Your task to perform on an android device: Is it going to rain tomorrow? Image 0: 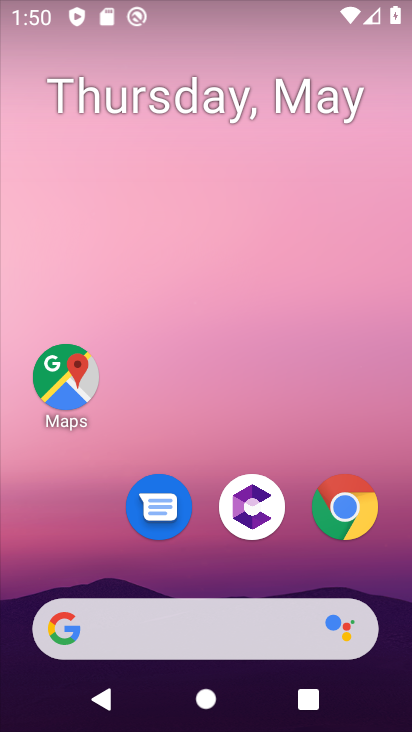
Step 0: click (64, 374)
Your task to perform on an android device: Is it going to rain tomorrow? Image 1: 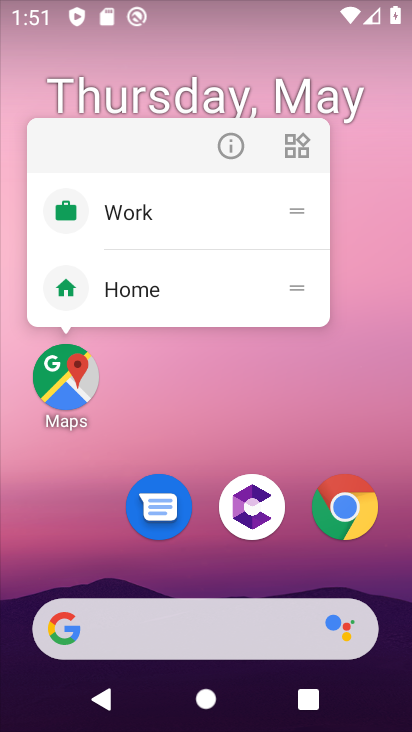
Step 1: click (199, 621)
Your task to perform on an android device: Is it going to rain tomorrow? Image 2: 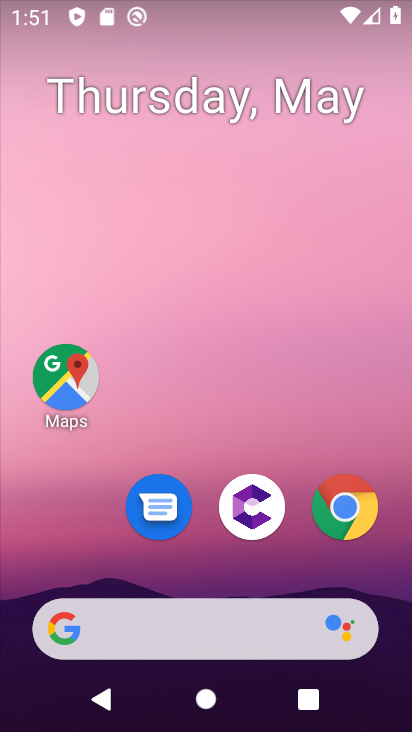
Step 2: click (199, 621)
Your task to perform on an android device: Is it going to rain tomorrow? Image 3: 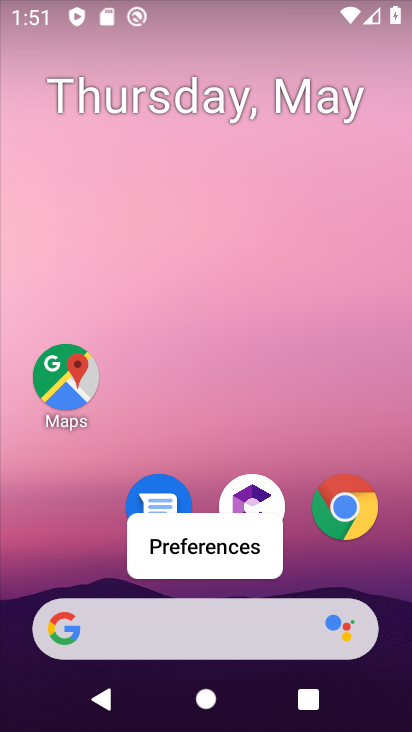
Step 3: click (229, 627)
Your task to perform on an android device: Is it going to rain tomorrow? Image 4: 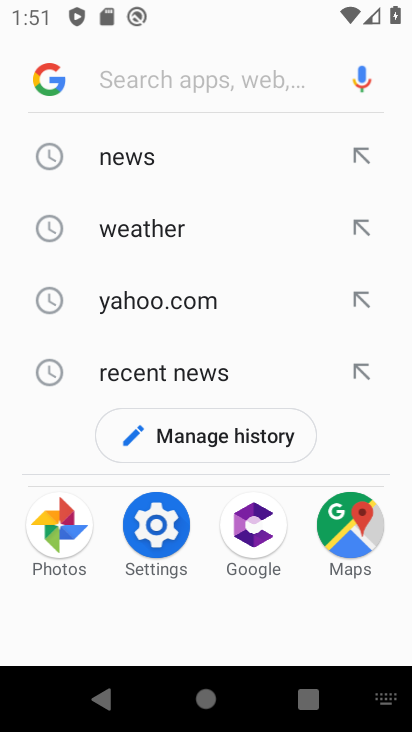
Step 4: type "Is it going to rain tomorrow?"
Your task to perform on an android device: Is it going to rain tomorrow? Image 5: 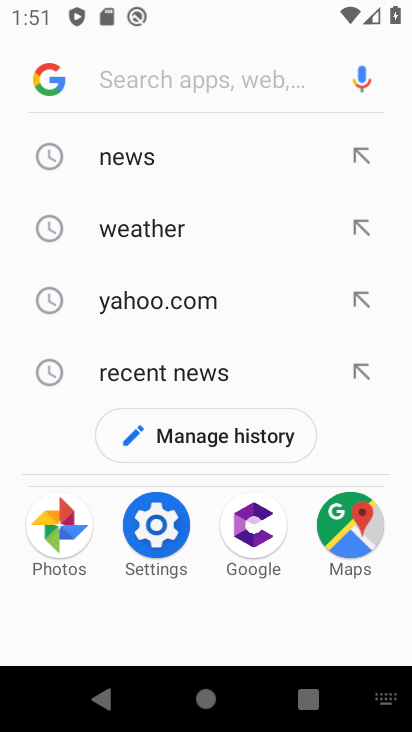
Step 5: click (215, 84)
Your task to perform on an android device: Is it going to rain tomorrow? Image 6: 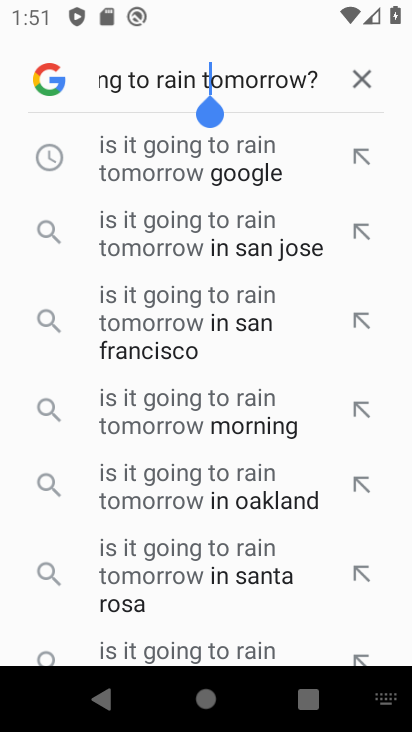
Step 6: click (164, 168)
Your task to perform on an android device: Is it going to rain tomorrow? Image 7: 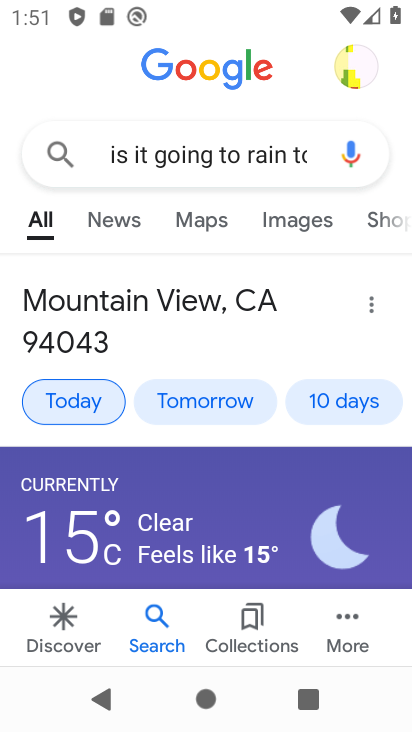
Step 7: task complete